Your task to perform on an android device: Show me popular videos on Youtube Image 0: 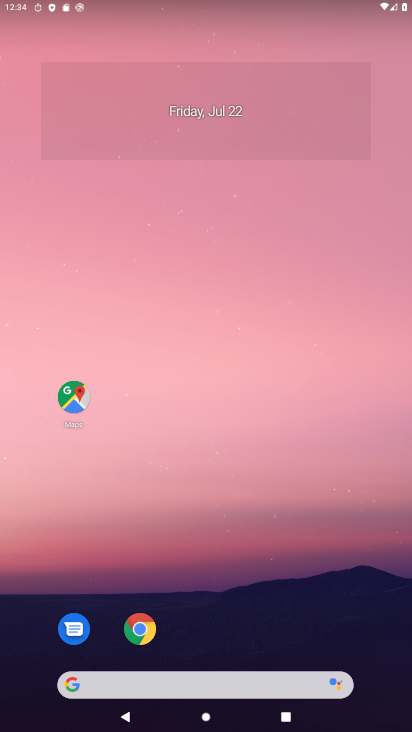
Step 0: drag from (188, 626) to (243, 13)
Your task to perform on an android device: Show me popular videos on Youtube Image 1: 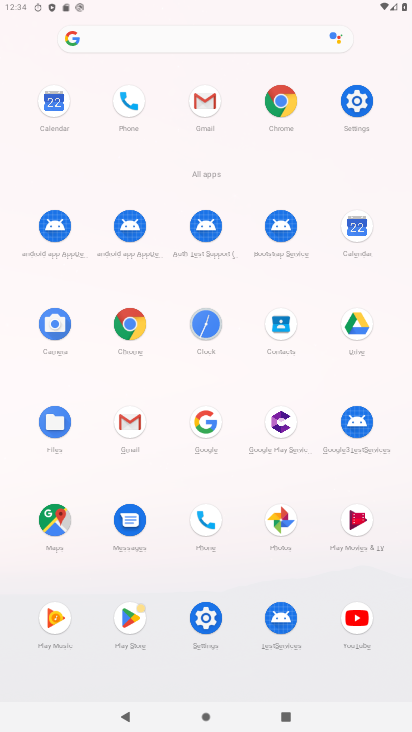
Step 1: click (356, 628)
Your task to perform on an android device: Show me popular videos on Youtube Image 2: 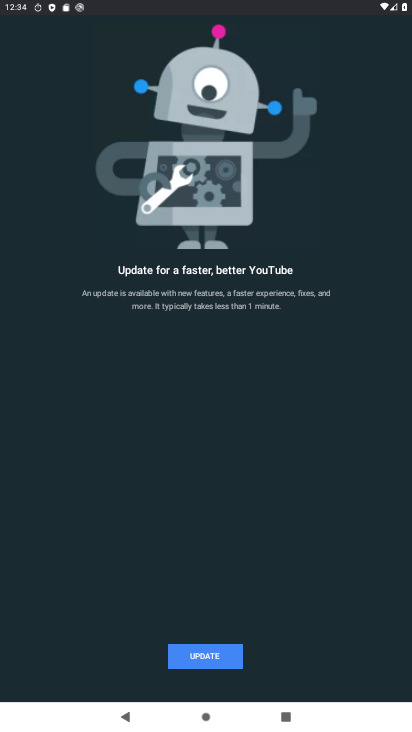
Step 2: click (203, 656)
Your task to perform on an android device: Show me popular videos on Youtube Image 3: 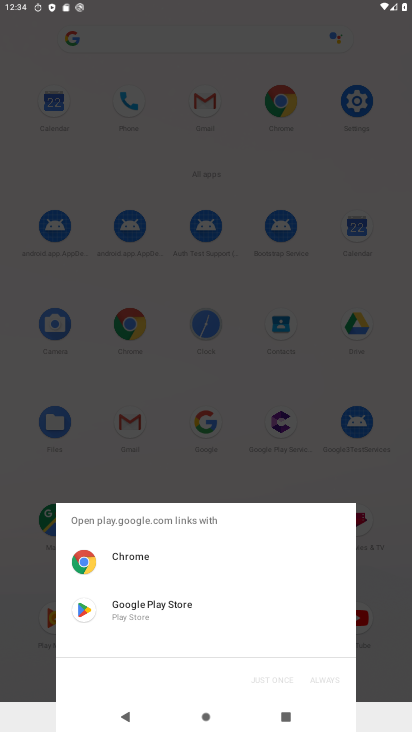
Step 3: click (151, 607)
Your task to perform on an android device: Show me popular videos on Youtube Image 4: 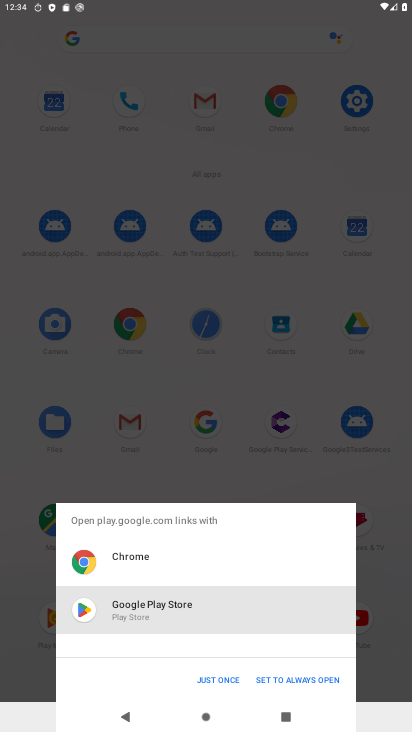
Step 4: click (219, 691)
Your task to perform on an android device: Show me popular videos on Youtube Image 5: 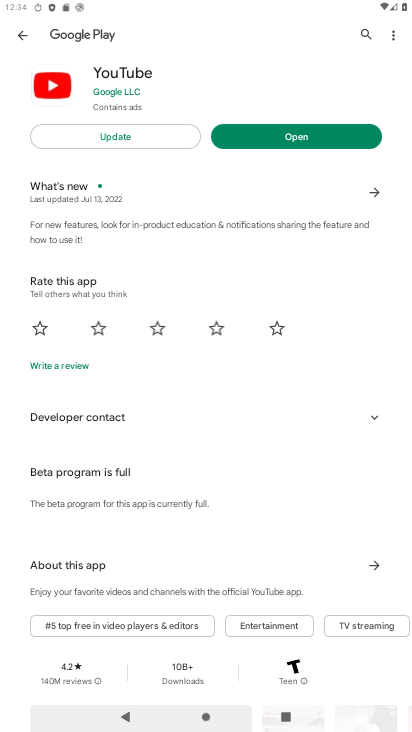
Step 5: click (134, 130)
Your task to perform on an android device: Show me popular videos on Youtube Image 6: 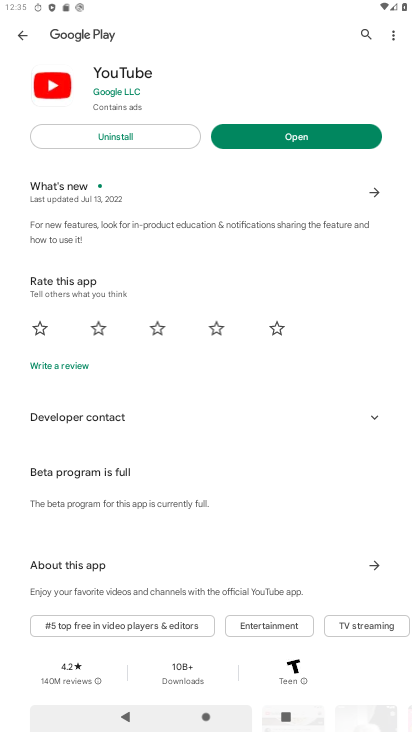
Step 6: click (309, 133)
Your task to perform on an android device: Show me popular videos on Youtube Image 7: 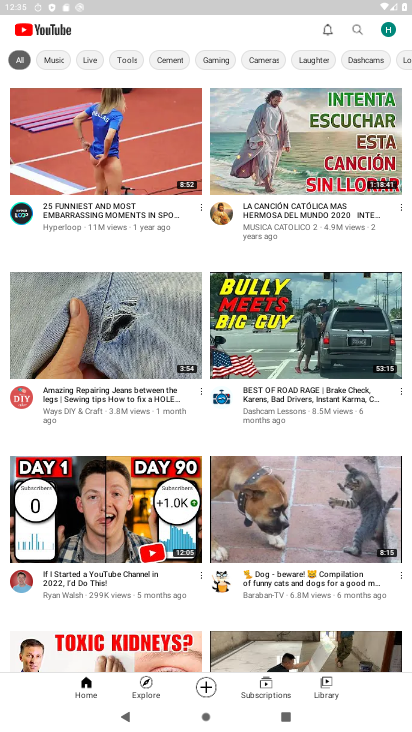
Step 7: task complete